Your task to perform on an android device: Turn off the flashlight Image 0: 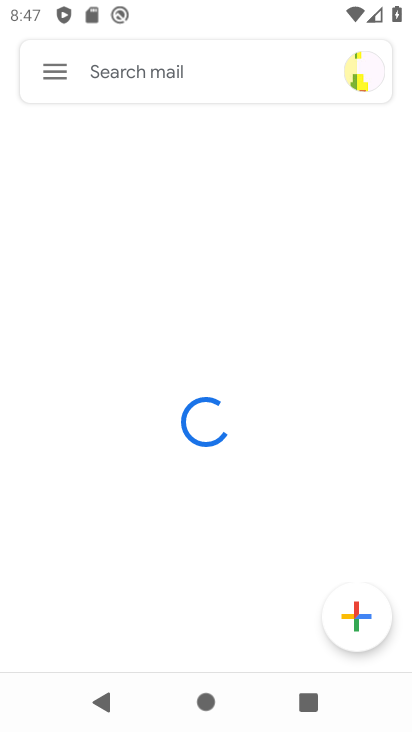
Step 0: press home button
Your task to perform on an android device: Turn off the flashlight Image 1: 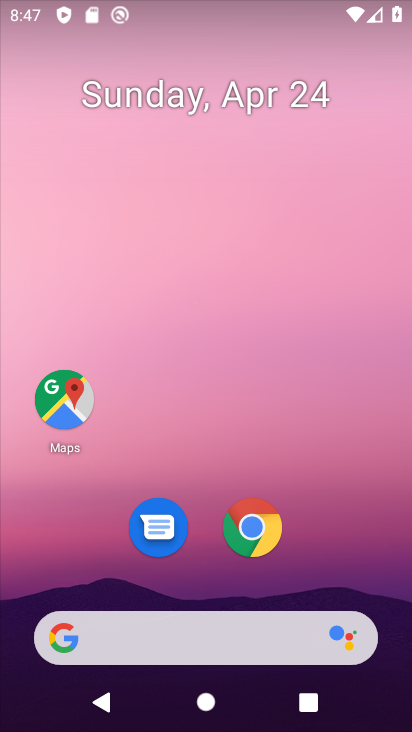
Step 1: drag from (385, 619) to (290, 47)
Your task to perform on an android device: Turn off the flashlight Image 2: 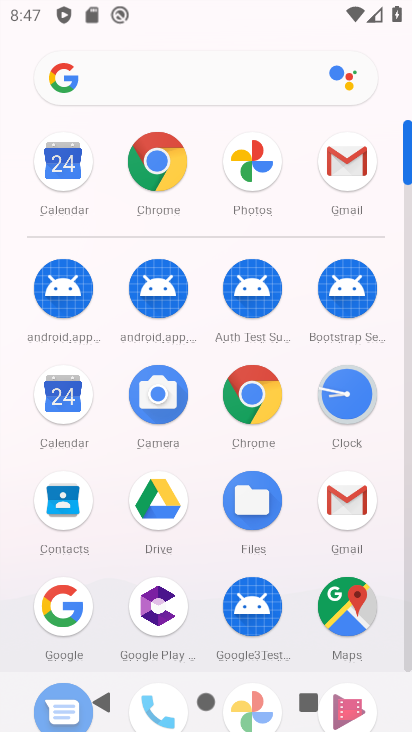
Step 2: click (406, 666)
Your task to perform on an android device: Turn off the flashlight Image 3: 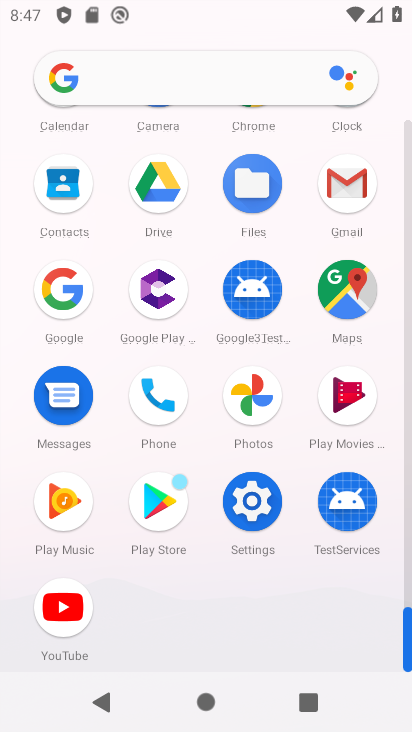
Step 3: click (265, 509)
Your task to perform on an android device: Turn off the flashlight Image 4: 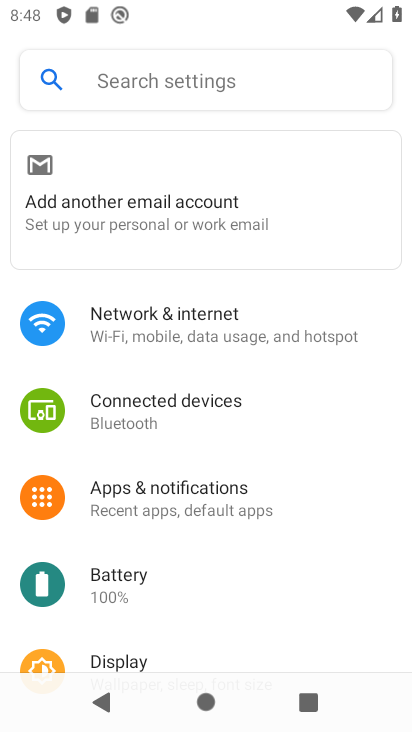
Step 4: task complete